Your task to perform on an android device: turn off location history Image 0: 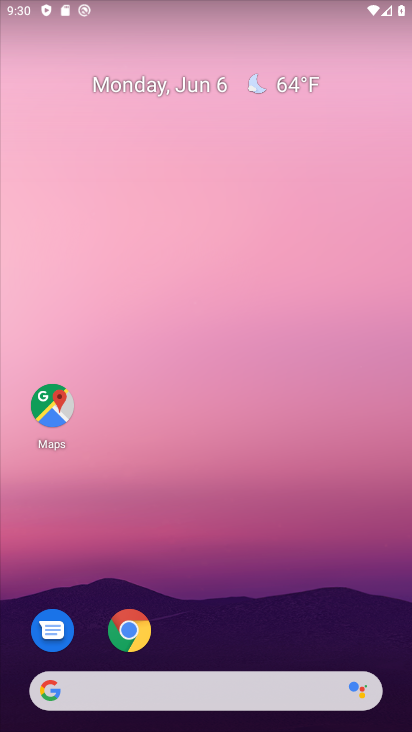
Step 0: drag from (117, 721) to (236, 58)
Your task to perform on an android device: turn off location history Image 1: 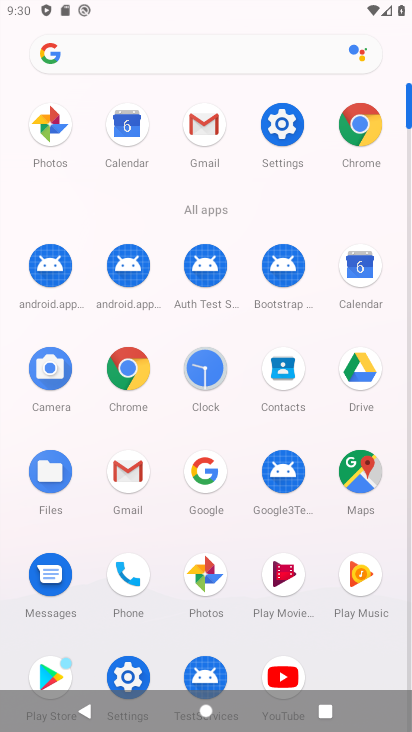
Step 1: click (275, 121)
Your task to perform on an android device: turn off location history Image 2: 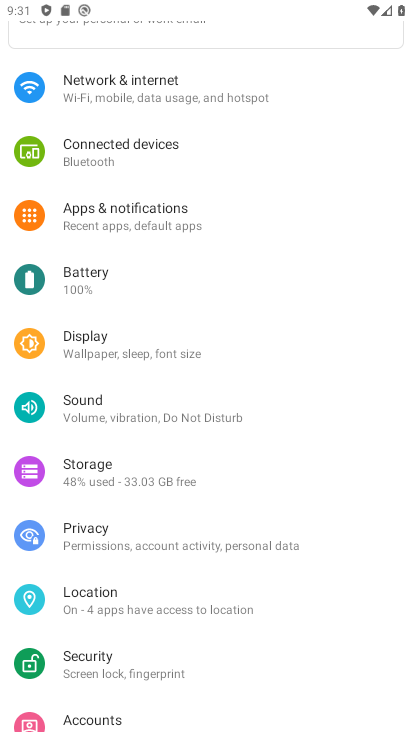
Step 2: click (85, 611)
Your task to perform on an android device: turn off location history Image 3: 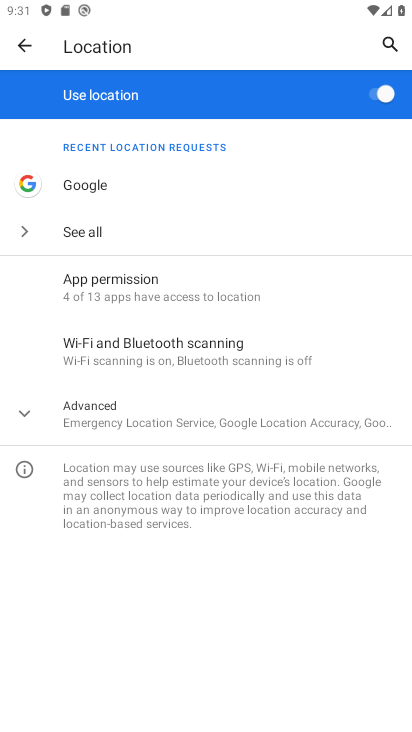
Step 3: click (335, 417)
Your task to perform on an android device: turn off location history Image 4: 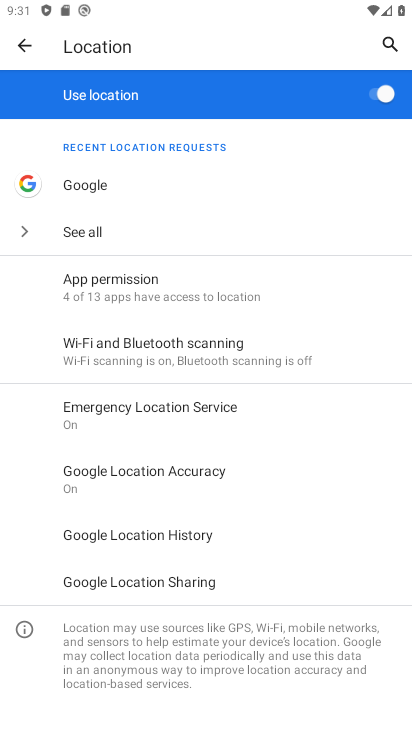
Step 4: click (179, 532)
Your task to perform on an android device: turn off location history Image 5: 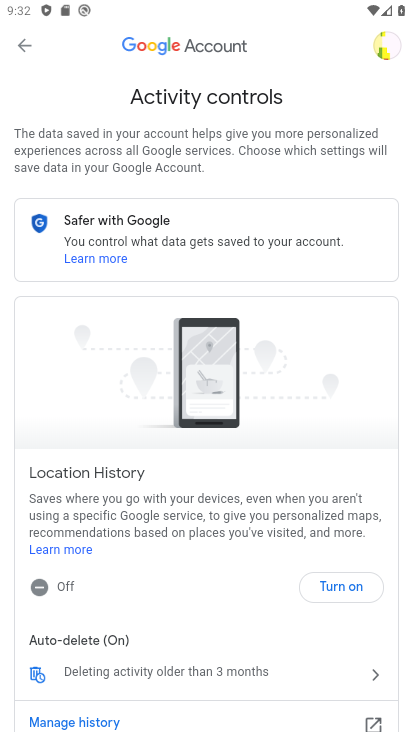
Step 5: task complete